Your task to perform on an android device: Open Youtube and go to "Your channel" Image 0: 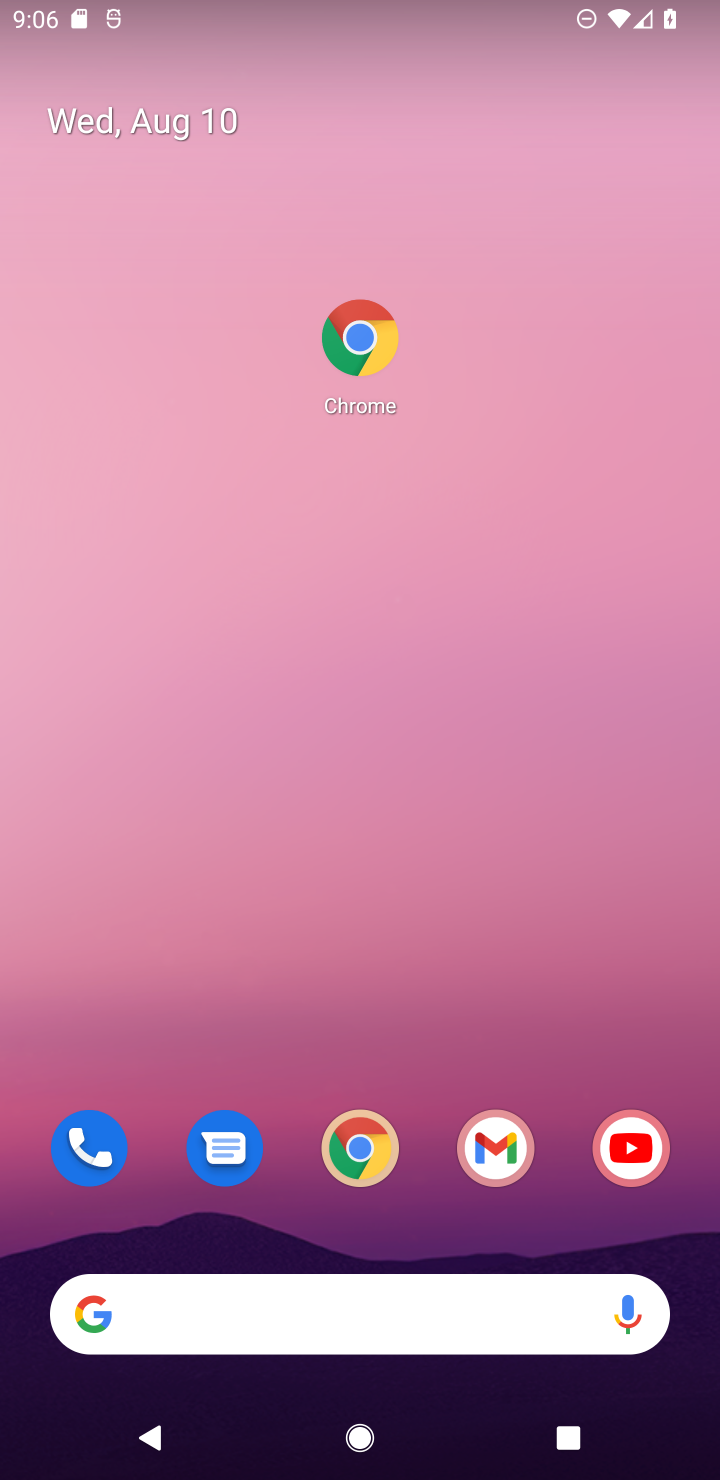
Step 0: click (621, 1166)
Your task to perform on an android device: Open Youtube and go to "Your channel" Image 1: 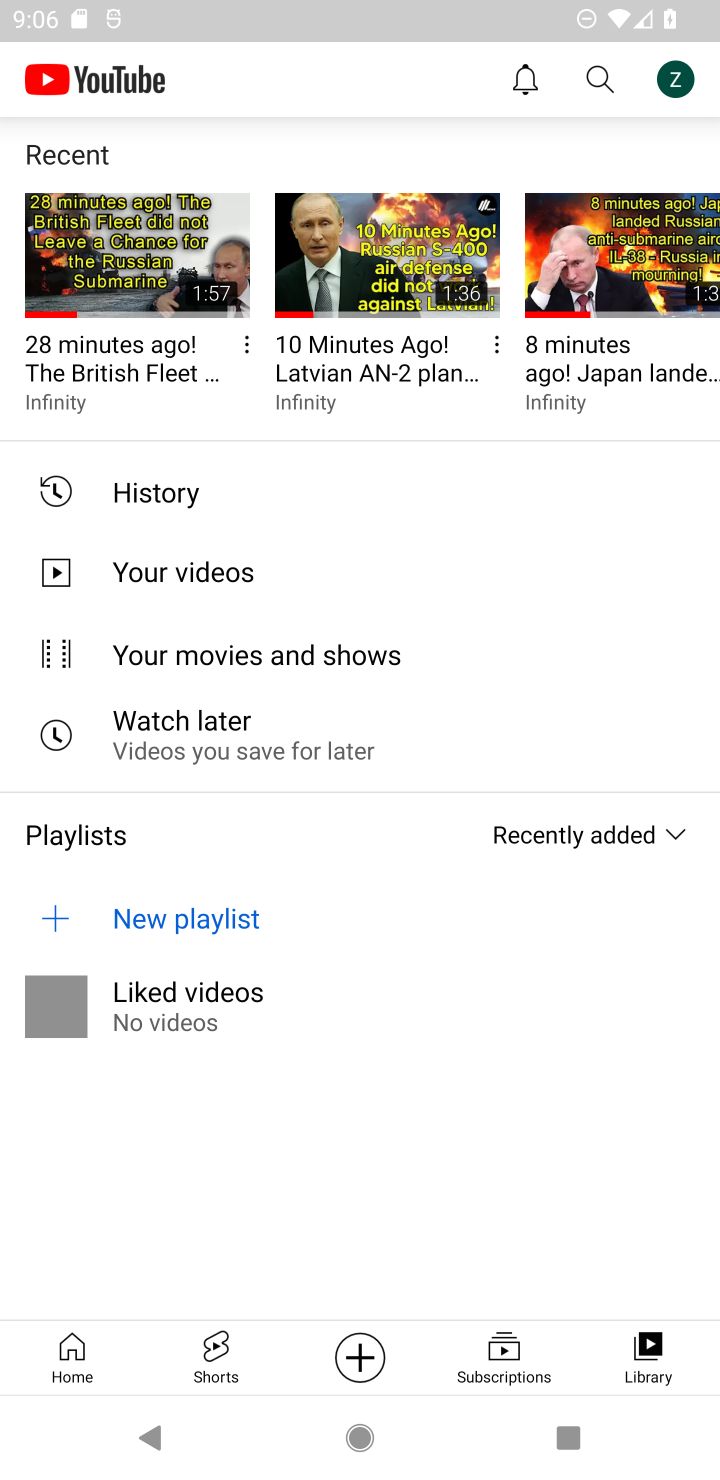
Step 1: task complete